Your task to perform on an android device: Open Android settings Image 0: 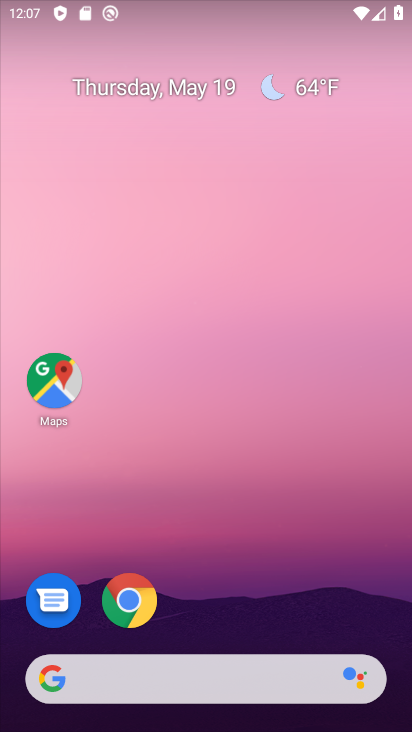
Step 0: drag from (229, 646) to (247, 6)
Your task to perform on an android device: Open Android settings Image 1: 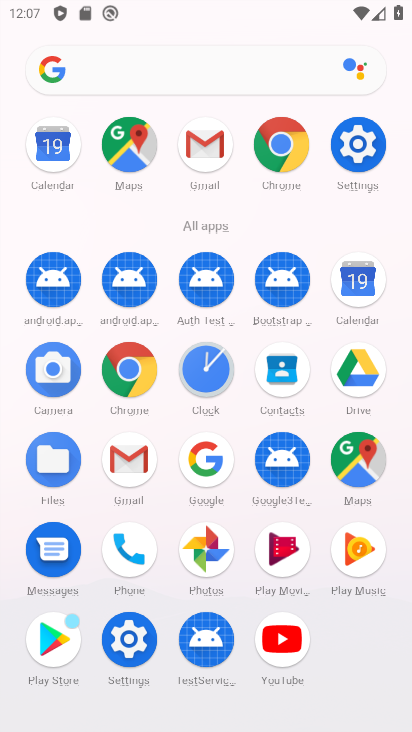
Step 1: click (124, 628)
Your task to perform on an android device: Open Android settings Image 2: 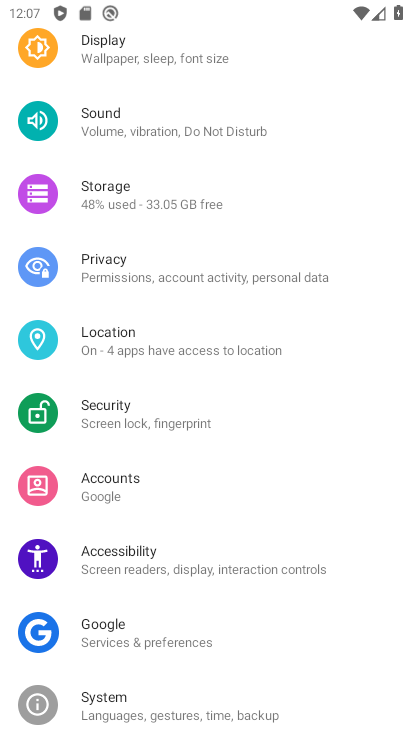
Step 2: drag from (154, 601) to (165, 84)
Your task to perform on an android device: Open Android settings Image 3: 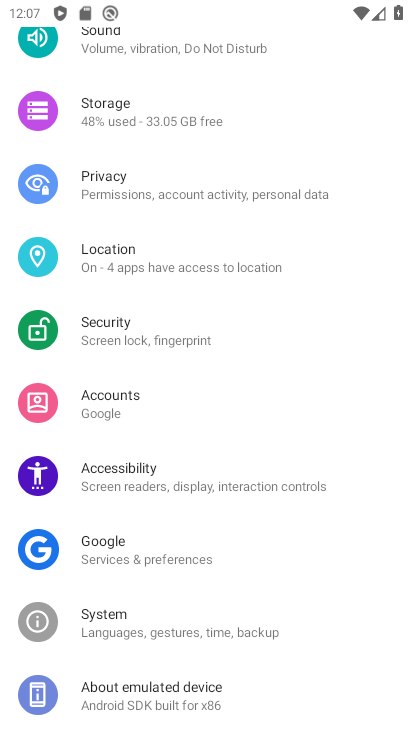
Step 3: click (159, 698)
Your task to perform on an android device: Open Android settings Image 4: 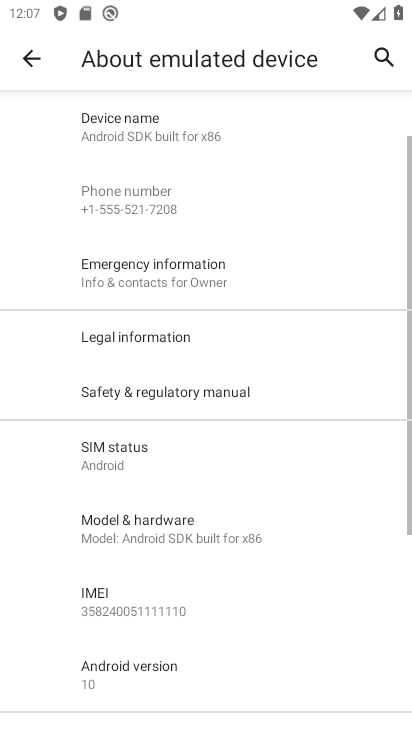
Step 4: drag from (233, 506) to (215, 90)
Your task to perform on an android device: Open Android settings Image 5: 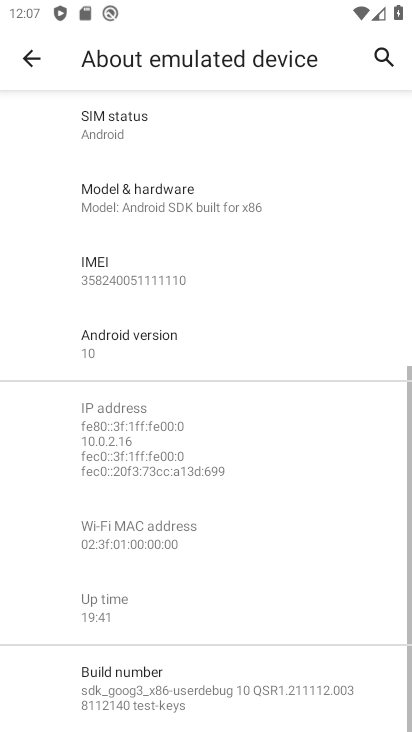
Step 5: click (155, 340)
Your task to perform on an android device: Open Android settings Image 6: 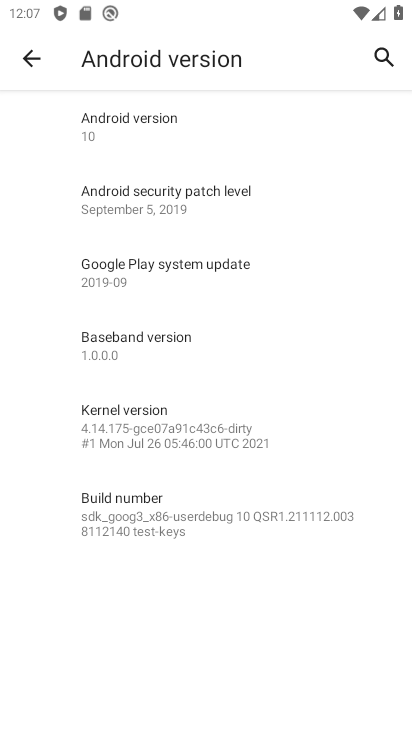
Step 6: task complete